Your task to perform on an android device: When is my next meeting? Image 0: 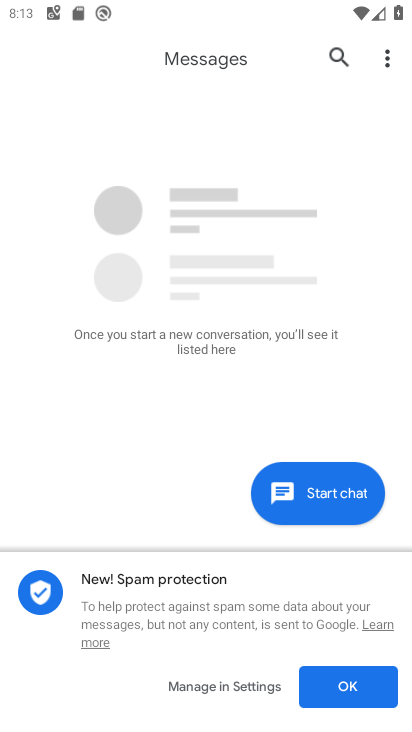
Step 0: press back button
Your task to perform on an android device: When is my next meeting? Image 1: 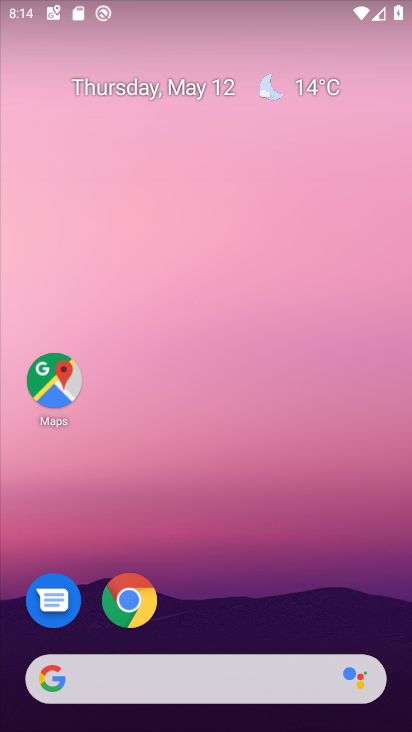
Step 1: drag from (283, 549) to (164, 25)
Your task to perform on an android device: When is my next meeting? Image 2: 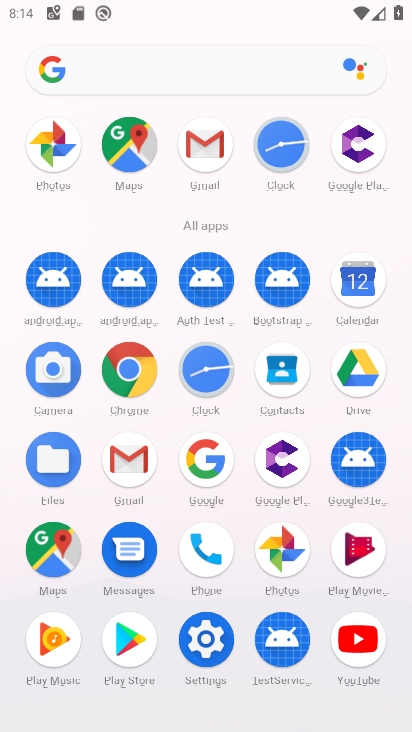
Step 2: click (345, 282)
Your task to perform on an android device: When is my next meeting? Image 3: 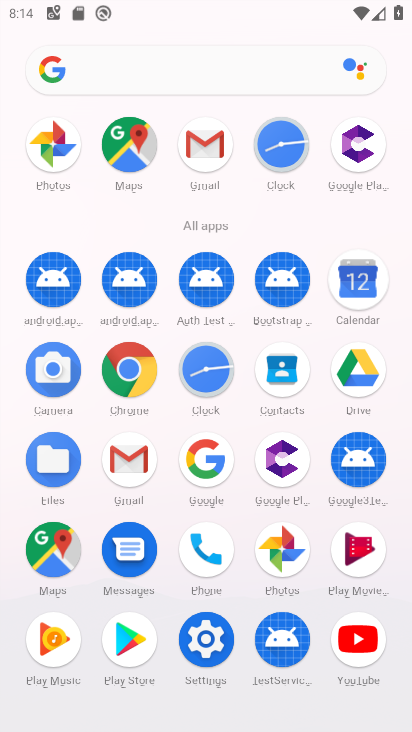
Step 3: click (347, 278)
Your task to perform on an android device: When is my next meeting? Image 4: 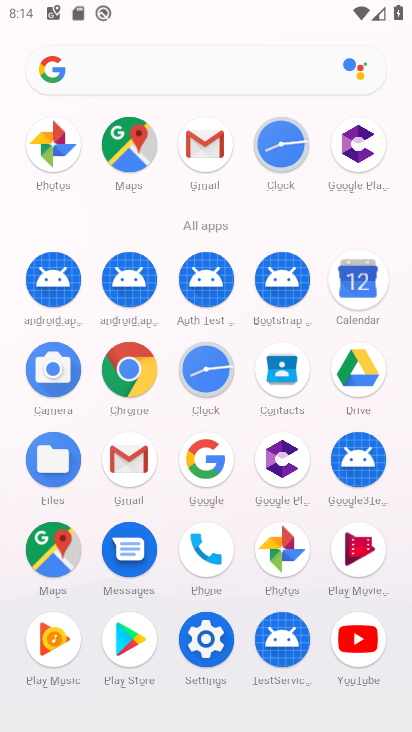
Step 4: click (346, 268)
Your task to perform on an android device: When is my next meeting? Image 5: 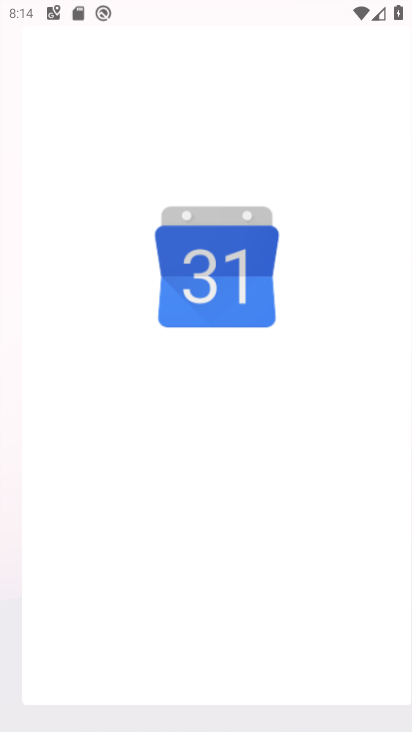
Step 5: click (355, 278)
Your task to perform on an android device: When is my next meeting? Image 6: 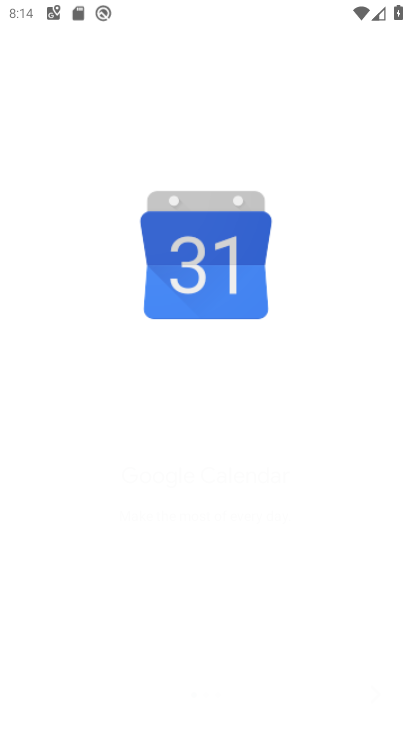
Step 6: click (357, 274)
Your task to perform on an android device: When is my next meeting? Image 7: 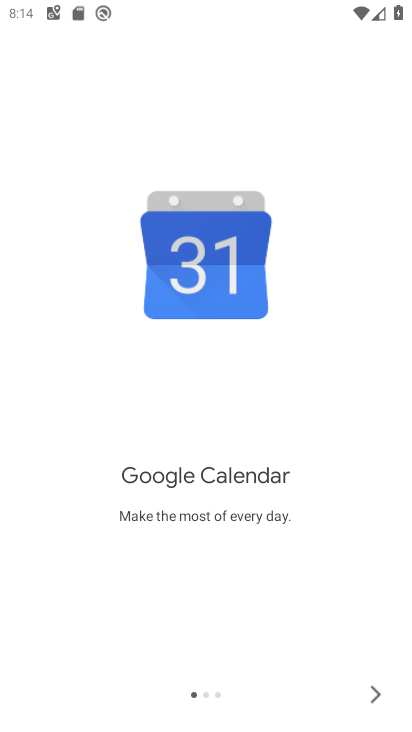
Step 7: click (377, 692)
Your task to perform on an android device: When is my next meeting? Image 8: 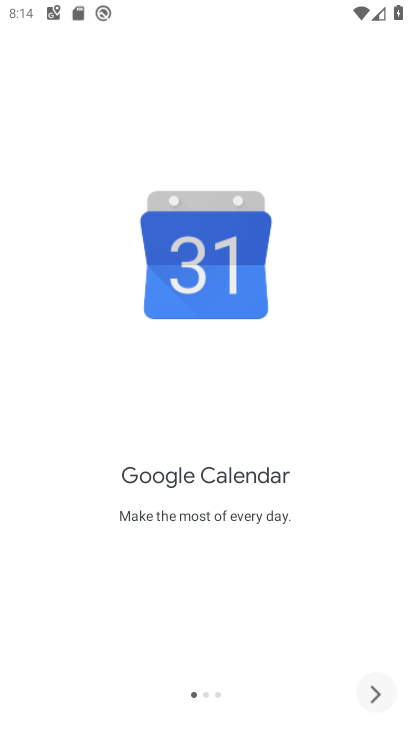
Step 8: click (378, 691)
Your task to perform on an android device: When is my next meeting? Image 9: 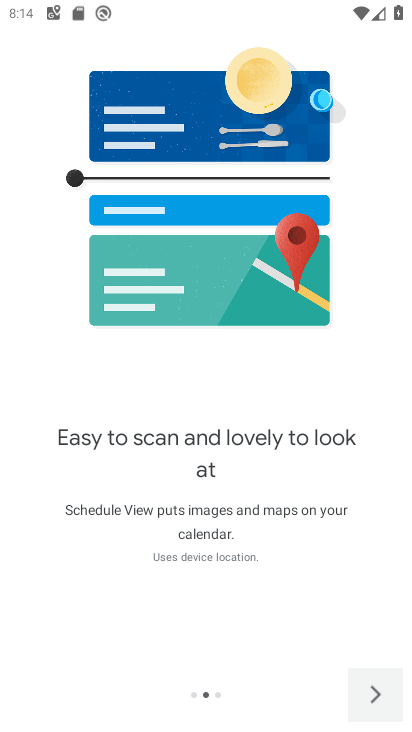
Step 9: click (383, 696)
Your task to perform on an android device: When is my next meeting? Image 10: 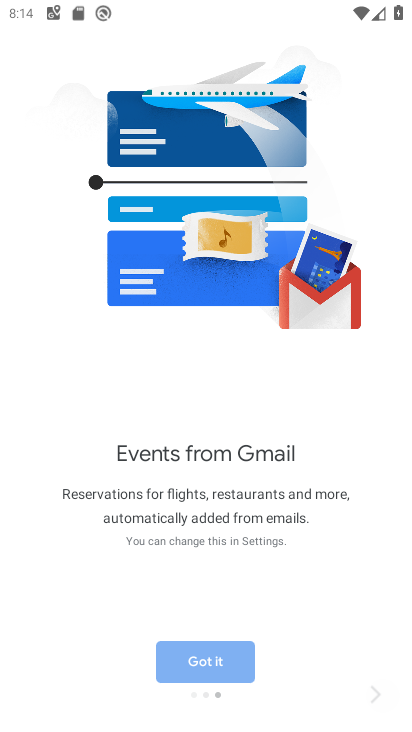
Step 10: click (382, 697)
Your task to perform on an android device: When is my next meeting? Image 11: 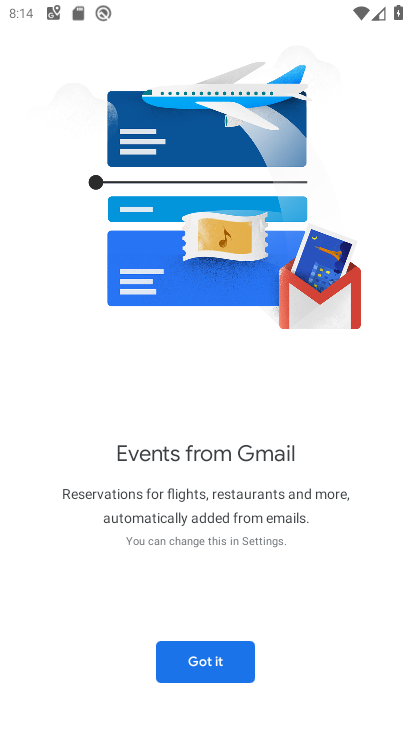
Step 11: drag from (382, 697) to (357, 665)
Your task to perform on an android device: When is my next meeting? Image 12: 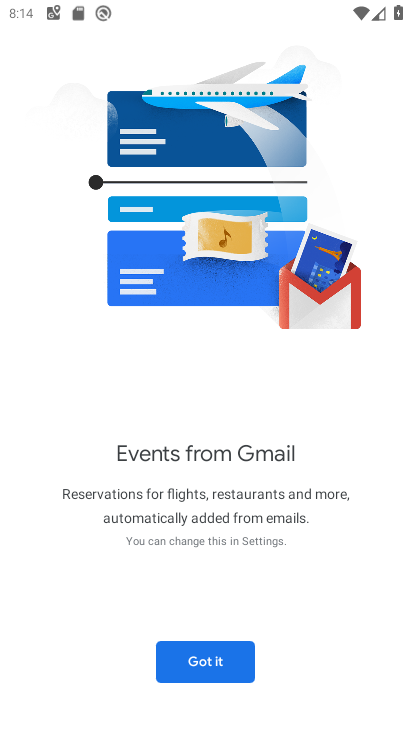
Step 12: click (226, 651)
Your task to perform on an android device: When is my next meeting? Image 13: 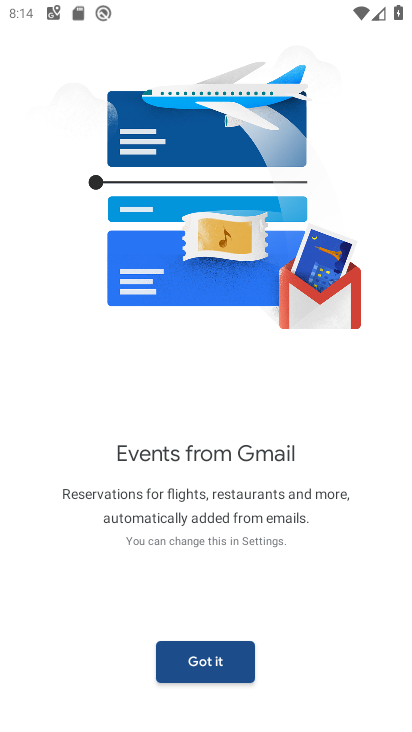
Step 13: click (229, 668)
Your task to perform on an android device: When is my next meeting? Image 14: 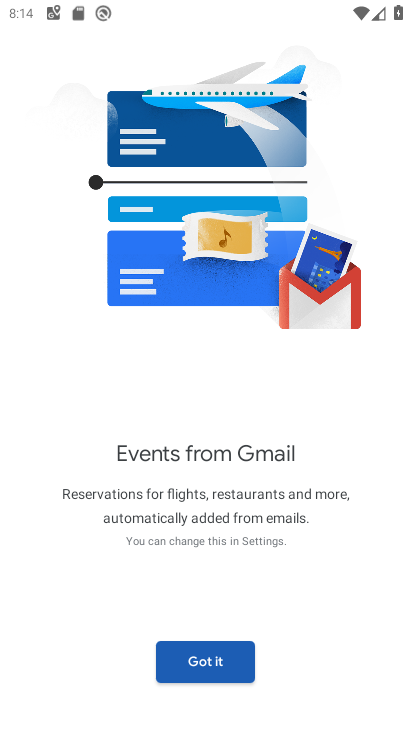
Step 14: click (230, 664)
Your task to perform on an android device: When is my next meeting? Image 15: 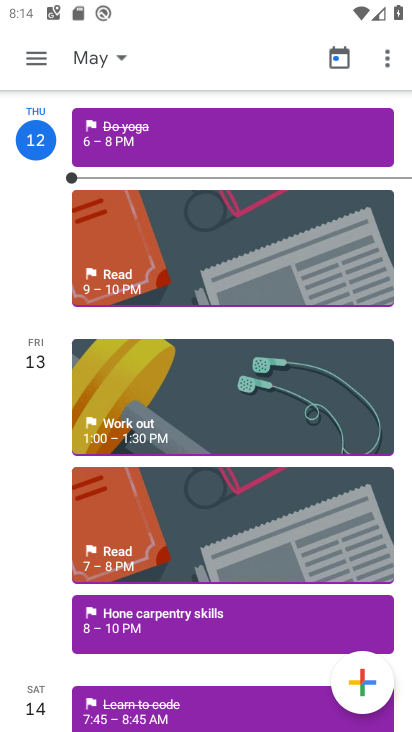
Step 15: drag from (187, 390) to (87, 177)
Your task to perform on an android device: When is my next meeting? Image 16: 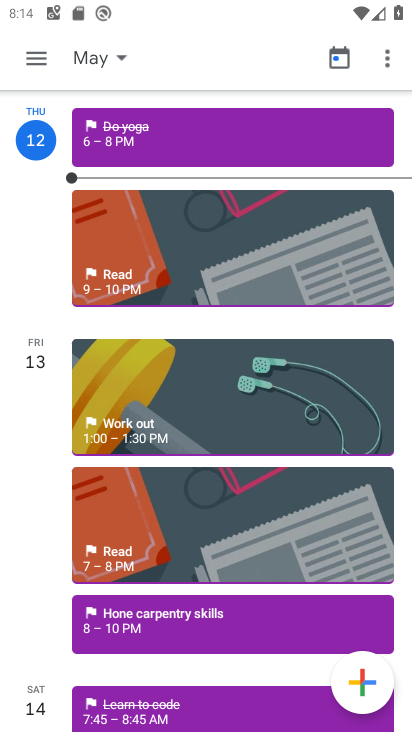
Step 16: drag from (181, 504) to (182, 203)
Your task to perform on an android device: When is my next meeting? Image 17: 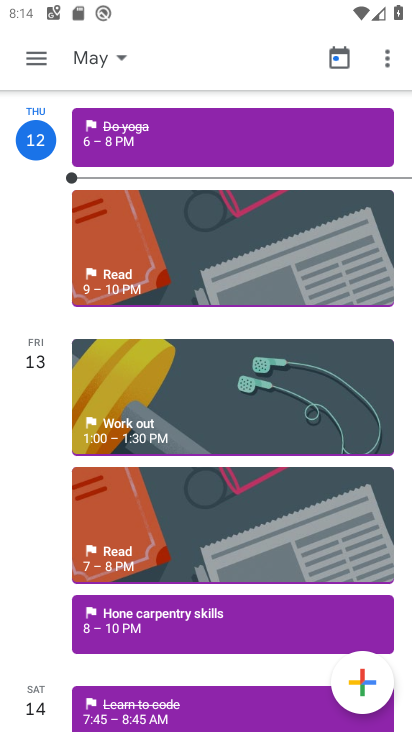
Step 17: drag from (189, 419) to (188, 180)
Your task to perform on an android device: When is my next meeting? Image 18: 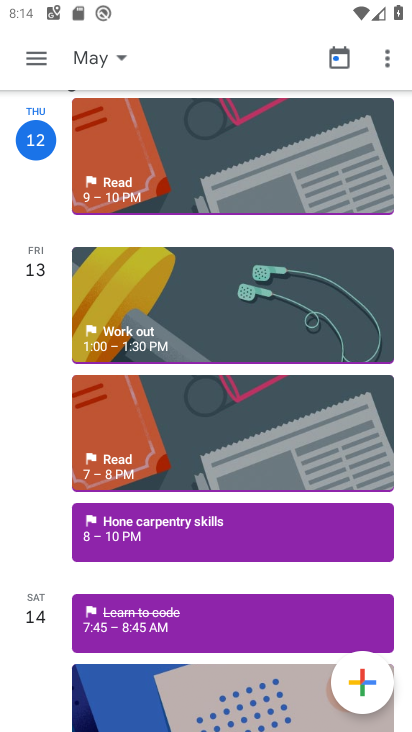
Step 18: drag from (260, 526) to (184, 114)
Your task to perform on an android device: When is my next meeting? Image 19: 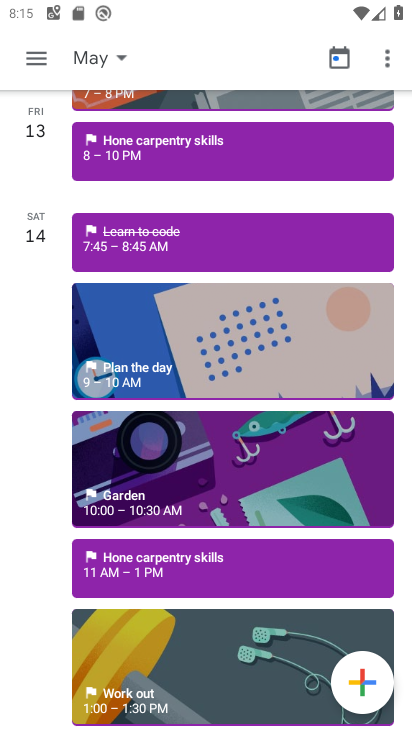
Step 19: click (155, 641)
Your task to perform on an android device: When is my next meeting? Image 20: 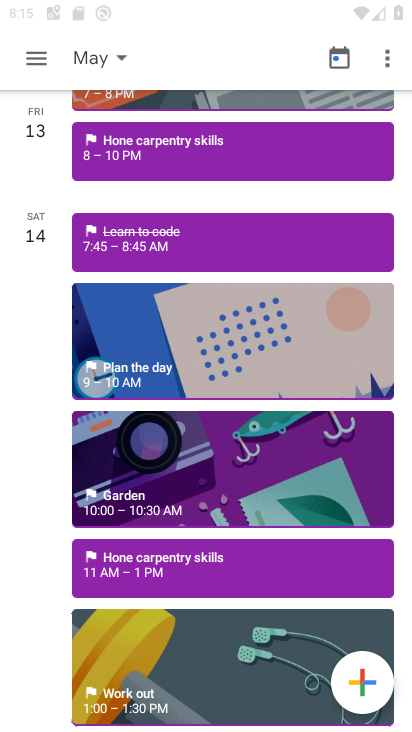
Step 20: click (149, 663)
Your task to perform on an android device: When is my next meeting? Image 21: 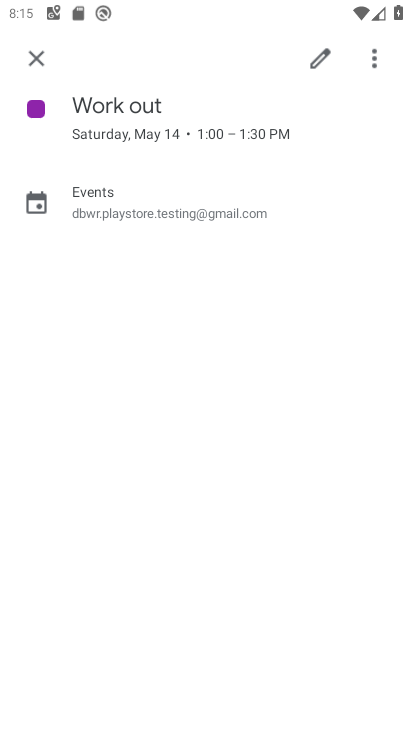
Step 21: task complete